Your task to perform on an android device: Go to display settings Image 0: 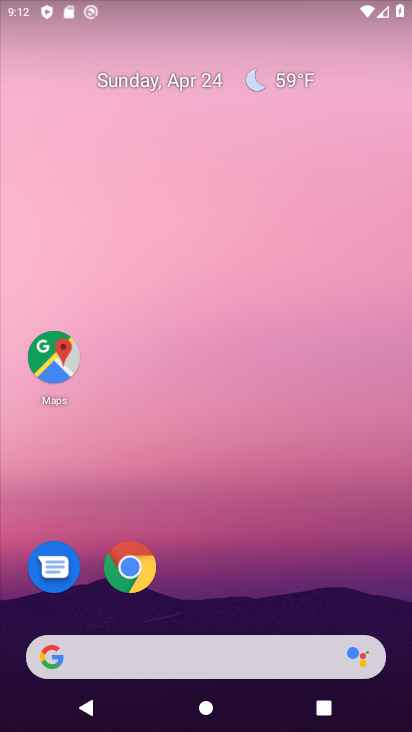
Step 0: drag from (327, 392) to (302, 243)
Your task to perform on an android device: Go to display settings Image 1: 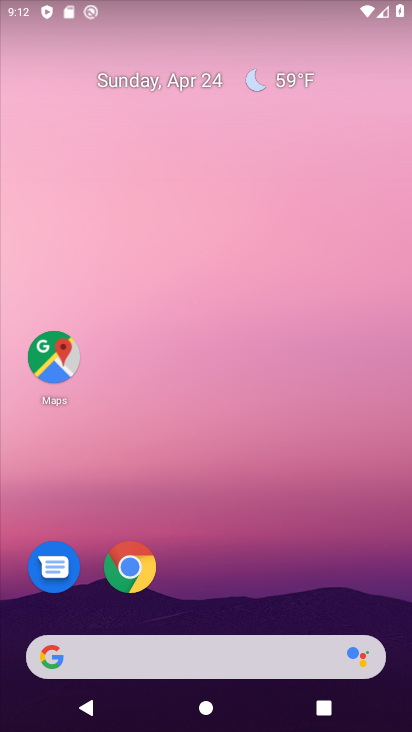
Step 1: drag from (394, 622) to (313, 190)
Your task to perform on an android device: Go to display settings Image 2: 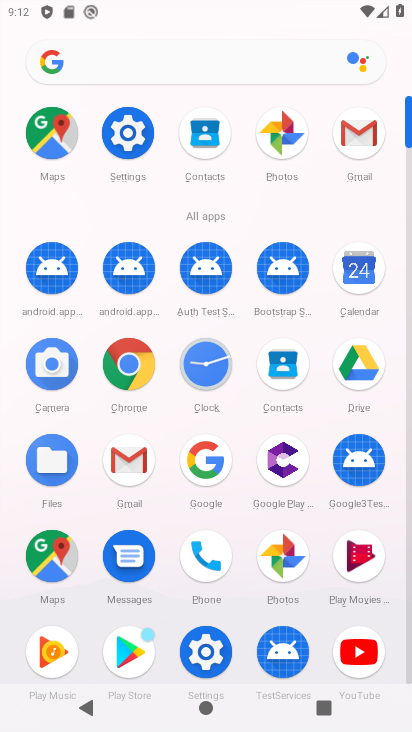
Step 2: click (131, 135)
Your task to perform on an android device: Go to display settings Image 3: 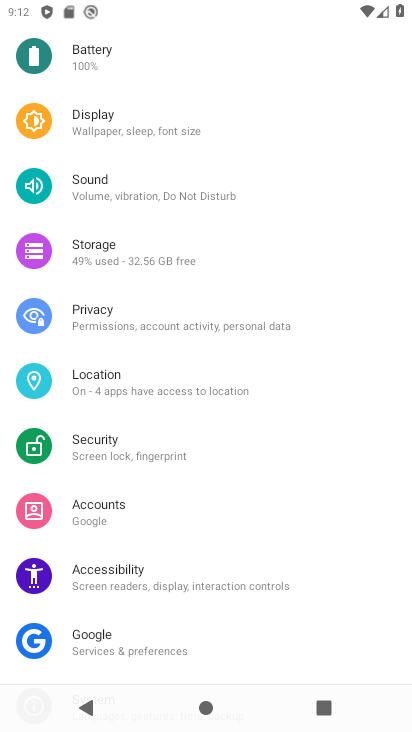
Step 3: click (96, 125)
Your task to perform on an android device: Go to display settings Image 4: 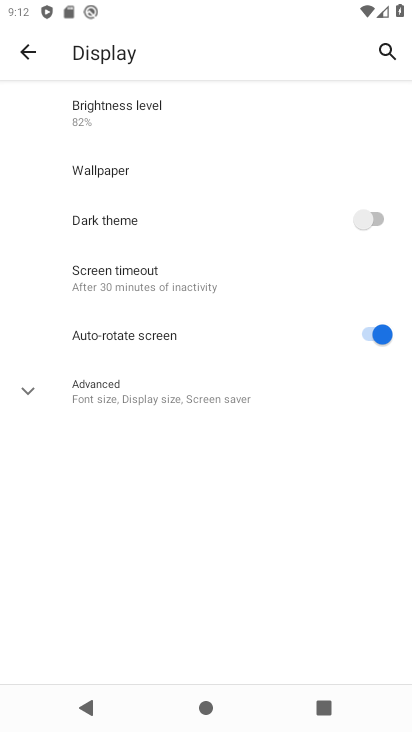
Step 4: task complete